Your task to perform on an android device: Open location settings Image 0: 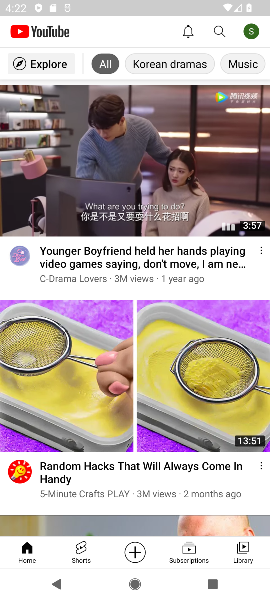
Step 0: press home button
Your task to perform on an android device: Open location settings Image 1: 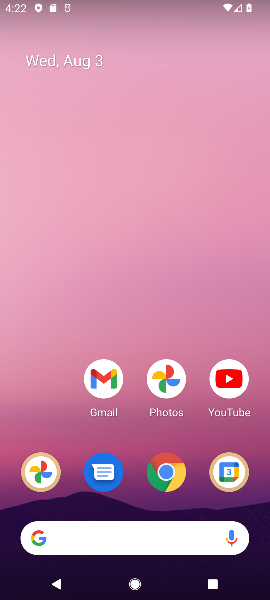
Step 1: drag from (127, 422) to (216, 43)
Your task to perform on an android device: Open location settings Image 2: 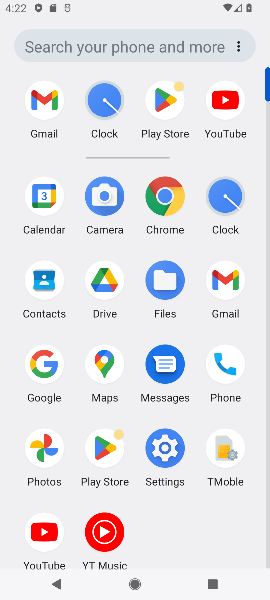
Step 2: click (176, 449)
Your task to perform on an android device: Open location settings Image 3: 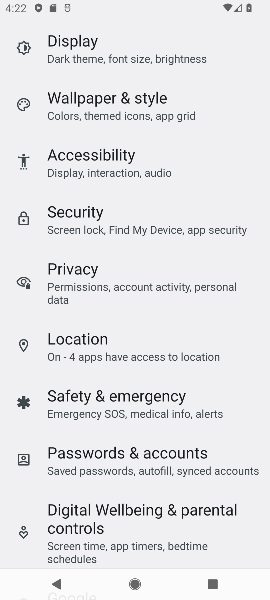
Step 3: click (83, 336)
Your task to perform on an android device: Open location settings Image 4: 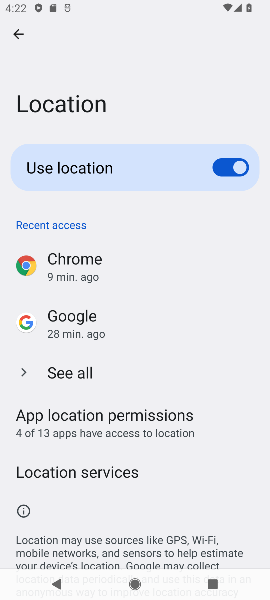
Step 4: task complete